Your task to perform on an android device: When is my next appointment? Image 0: 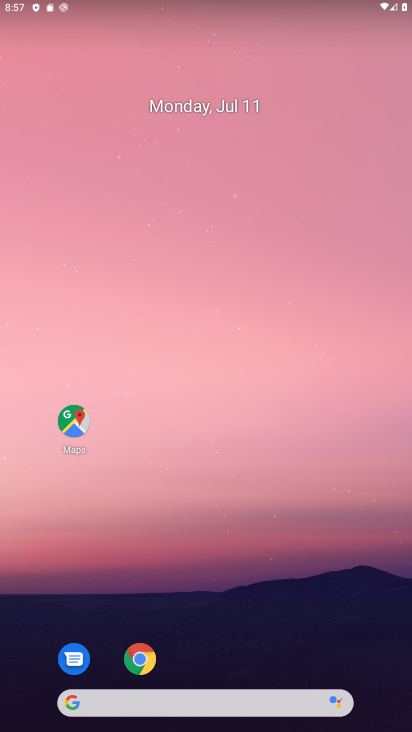
Step 0: drag from (198, 718) to (174, 77)
Your task to perform on an android device: When is my next appointment? Image 1: 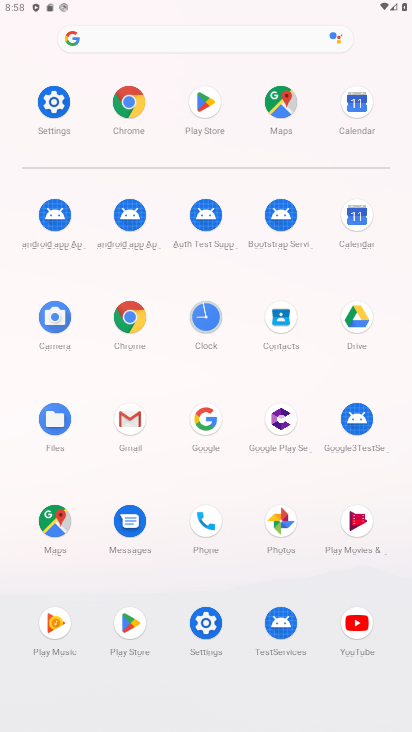
Step 1: click (354, 216)
Your task to perform on an android device: When is my next appointment? Image 2: 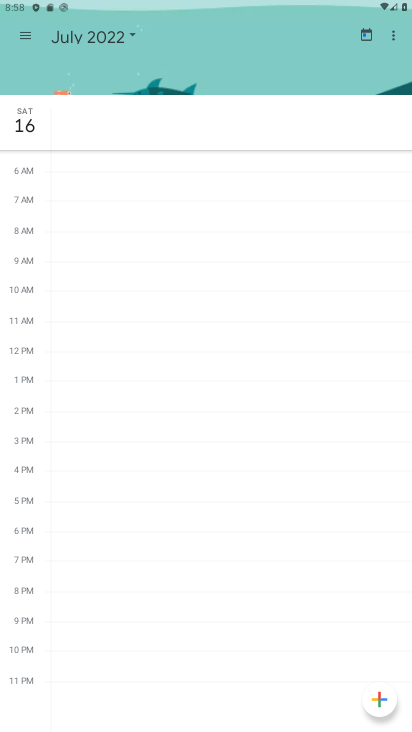
Step 2: click (131, 35)
Your task to perform on an android device: When is my next appointment? Image 3: 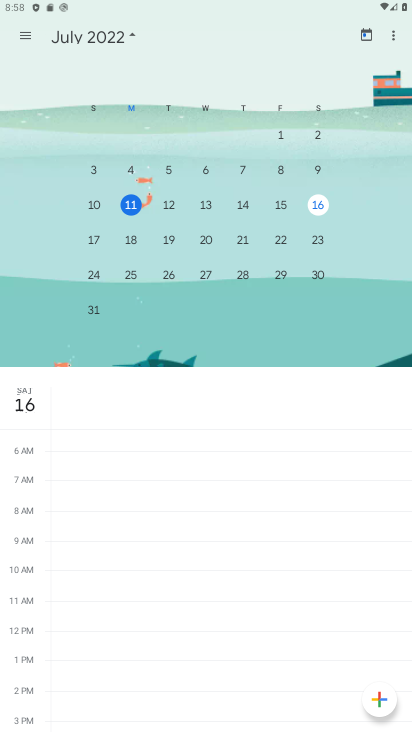
Step 3: click (169, 203)
Your task to perform on an android device: When is my next appointment? Image 4: 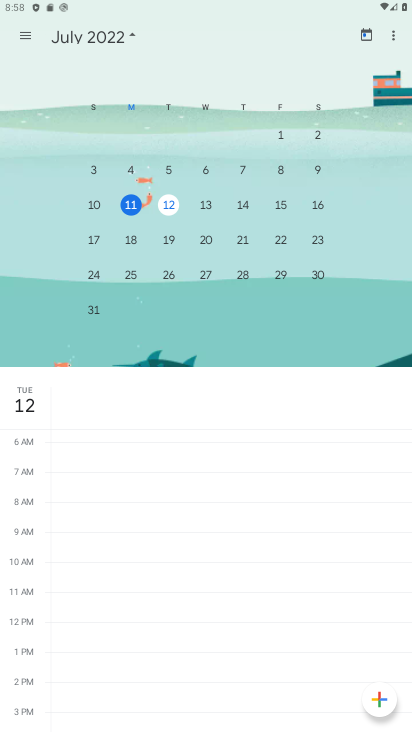
Step 4: click (169, 203)
Your task to perform on an android device: When is my next appointment? Image 5: 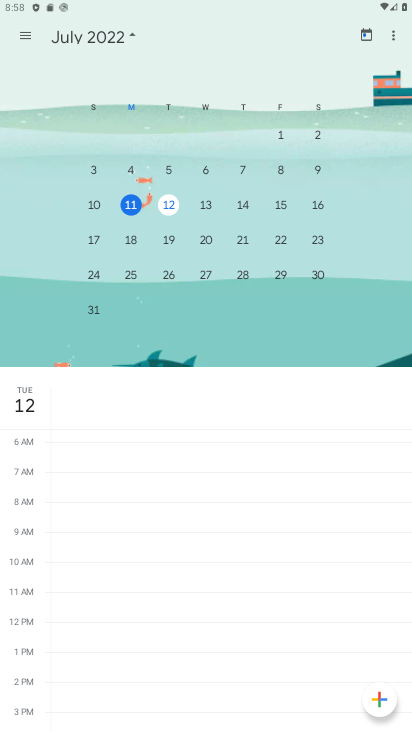
Step 5: click (19, 403)
Your task to perform on an android device: When is my next appointment? Image 6: 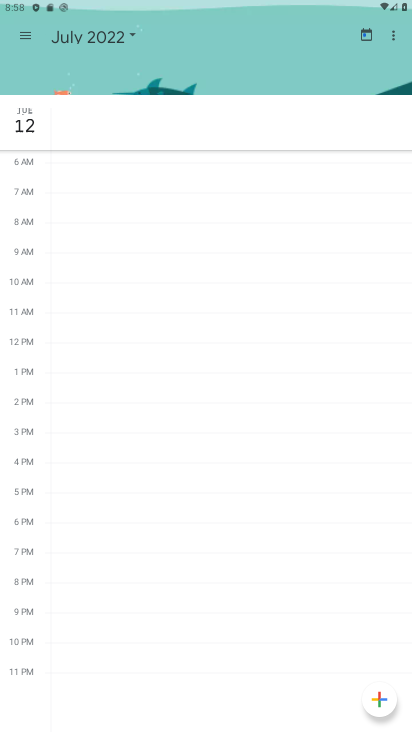
Step 6: task complete